Your task to perform on an android device: Open network settings Image 0: 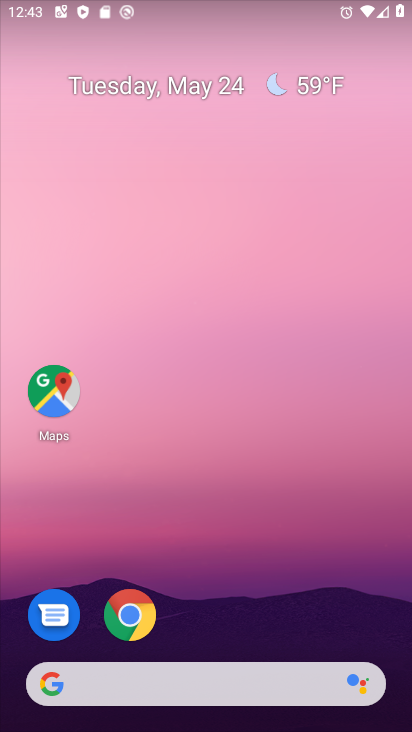
Step 0: drag from (218, 287) to (191, 53)
Your task to perform on an android device: Open network settings Image 1: 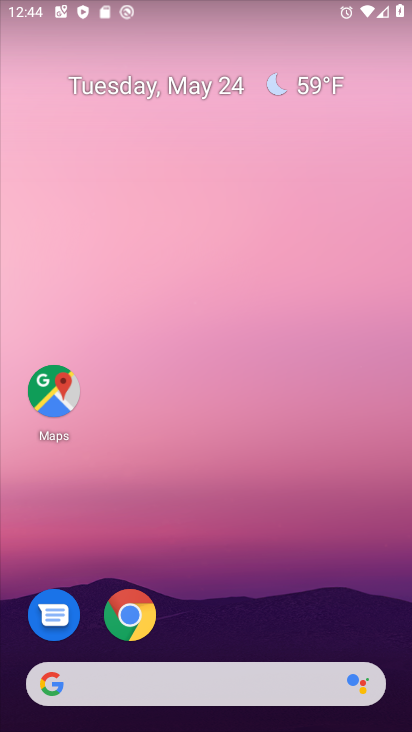
Step 1: drag from (217, 542) to (173, 38)
Your task to perform on an android device: Open network settings Image 2: 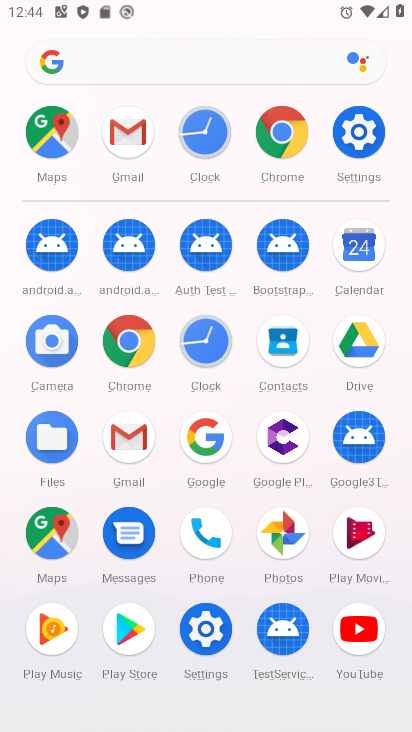
Step 2: click (206, 624)
Your task to perform on an android device: Open network settings Image 3: 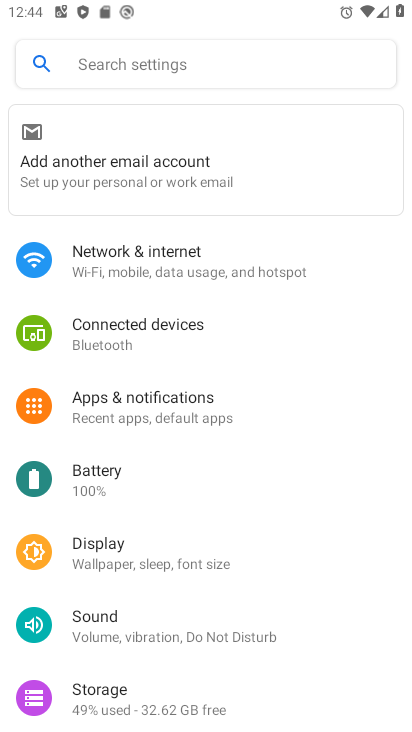
Step 3: click (145, 242)
Your task to perform on an android device: Open network settings Image 4: 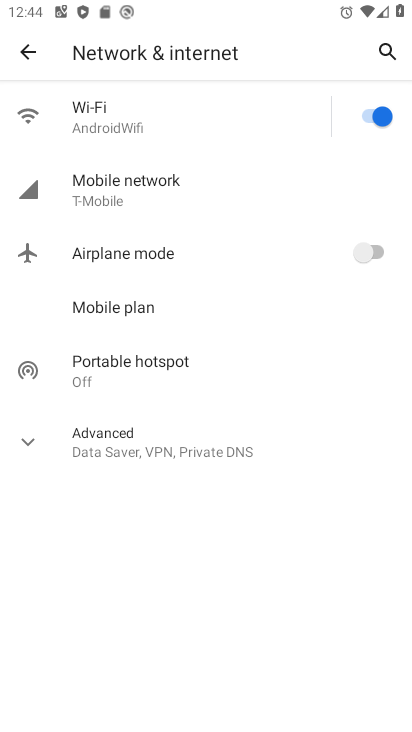
Step 4: click (141, 119)
Your task to perform on an android device: Open network settings Image 5: 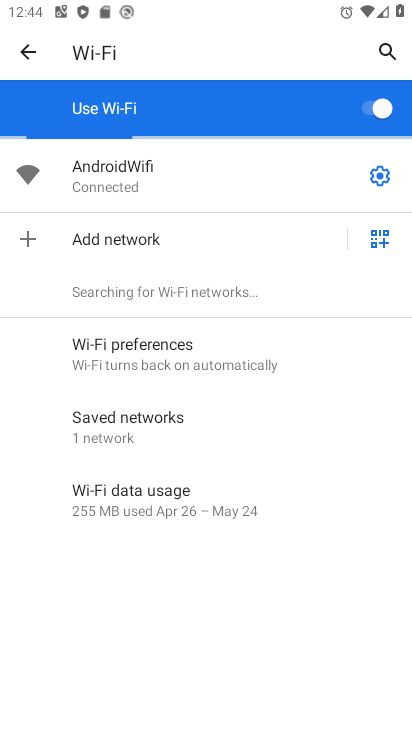
Step 5: task complete